Your task to perform on an android device: change the clock display to analog Image 0: 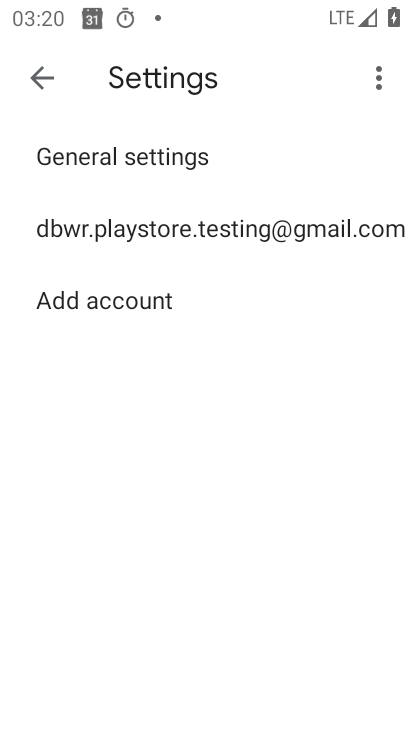
Step 0: press home button
Your task to perform on an android device: change the clock display to analog Image 1: 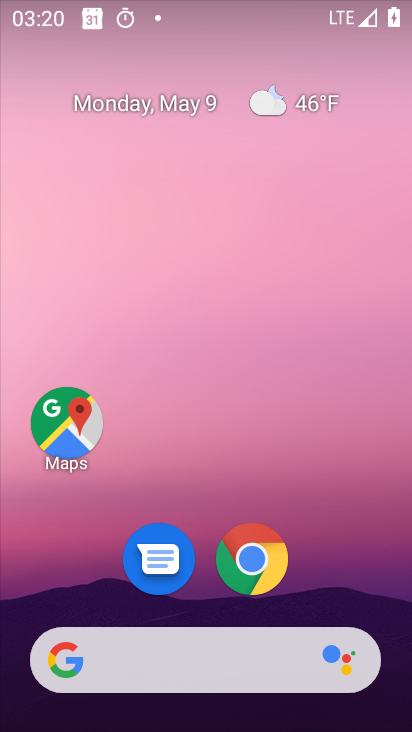
Step 1: drag from (206, 452) to (280, 83)
Your task to perform on an android device: change the clock display to analog Image 2: 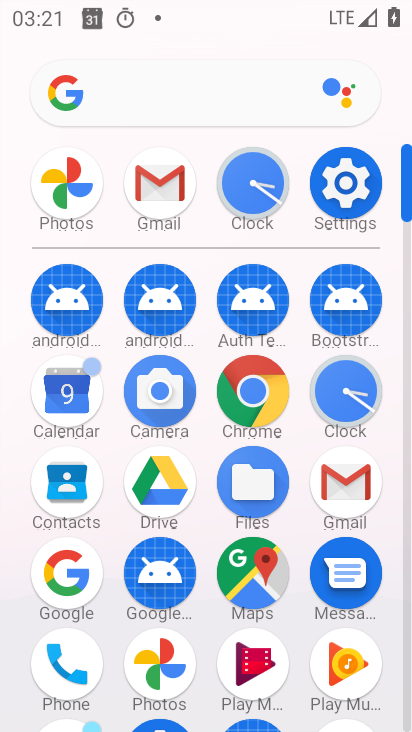
Step 2: click (332, 409)
Your task to perform on an android device: change the clock display to analog Image 3: 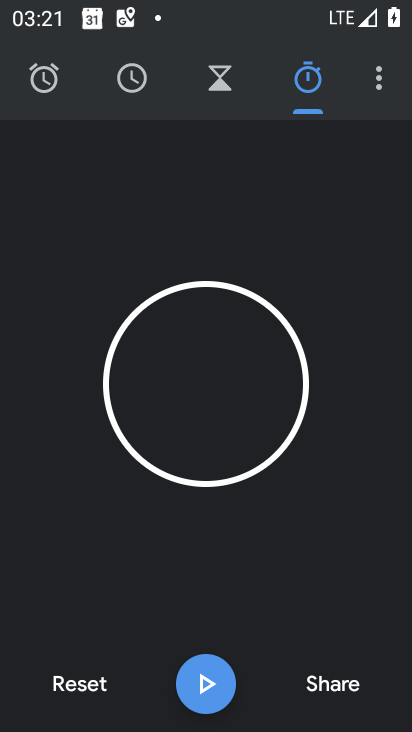
Step 3: click (380, 84)
Your task to perform on an android device: change the clock display to analog Image 4: 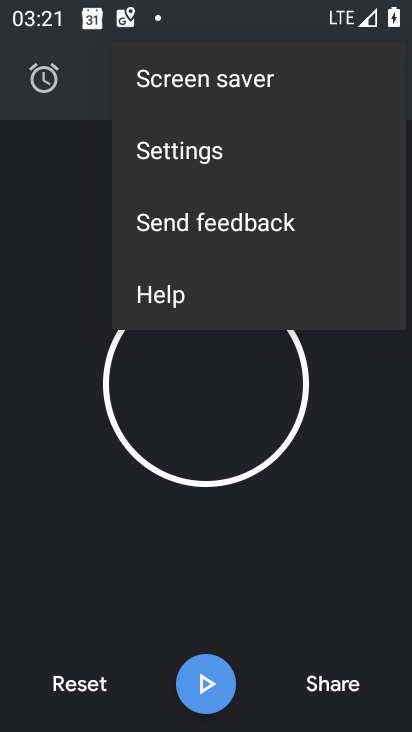
Step 4: click (183, 151)
Your task to perform on an android device: change the clock display to analog Image 5: 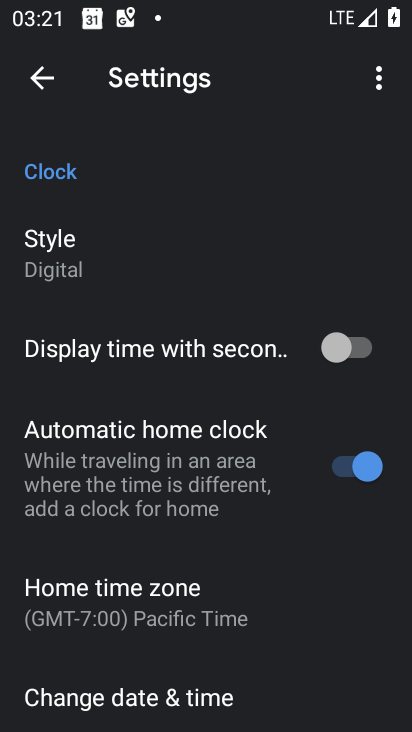
Step 5: click (79, 263)
Your task to perform on an android device: change the clock display to analog Image 6: 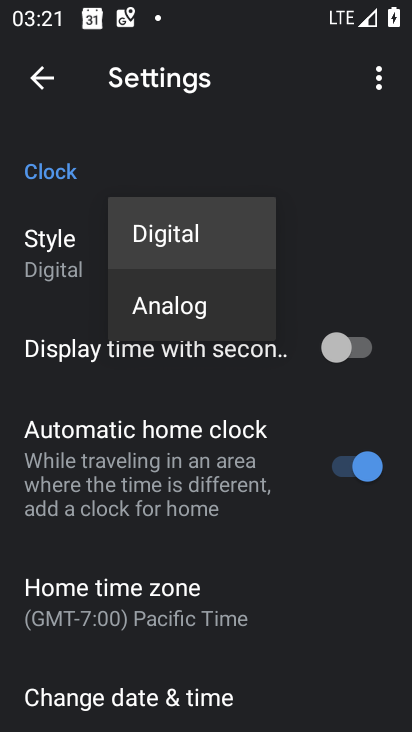
Step 6: click (157, 310)
Your task to perform on an android device: change the clock display to analog Image 7: 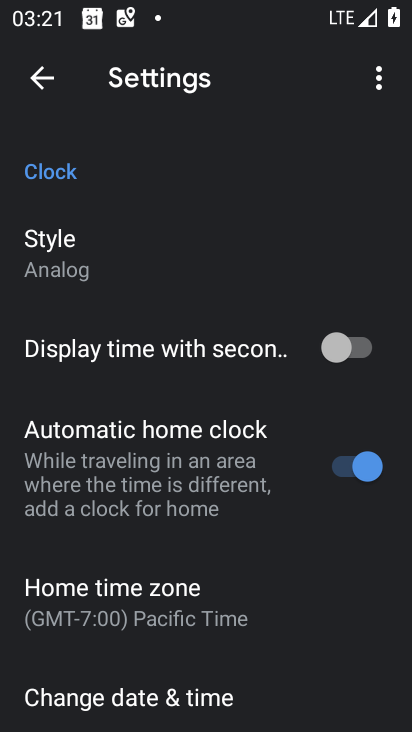
Step 7: task complete